Your task to perform on an android device: change your default location settings in chrome Image 0: 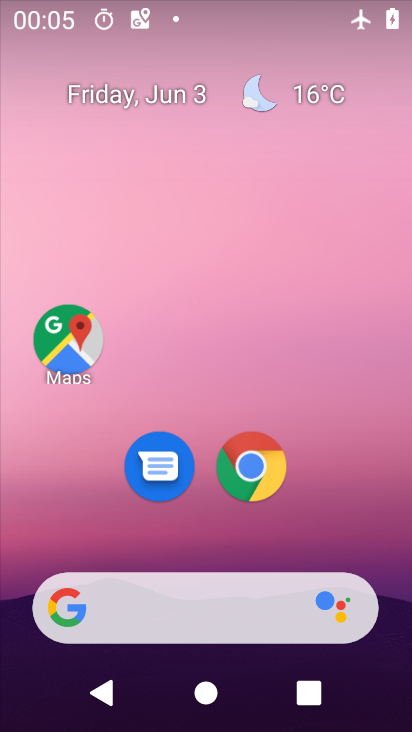
Step 0: click (241, 466)
Your task to perform on an android device: change your default location settings in chrome Image 1: 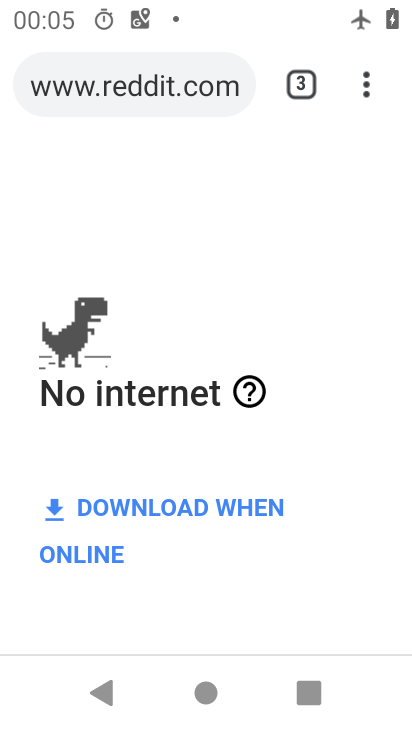
Step 1: drag from (357, 88) to (130, 530)
Your task to perform on an android device: change your default location settings in chrome Image 2: 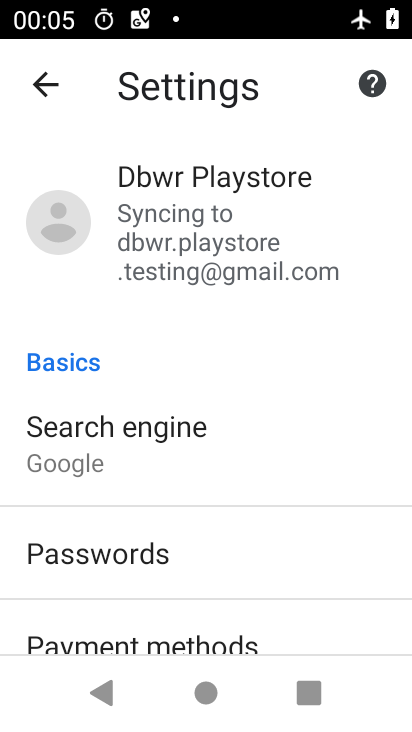
Step 2: drag from (192, 582) to (167, 236)
Your task to perform on an android device: change your default location settings in chrome Image 3: 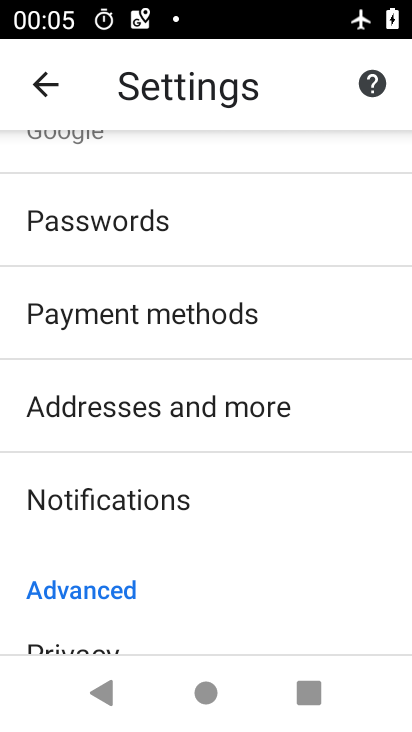
Step 3: drag from (158, 619) to (167, 342)
Your task to perform on an android device: change your default location settings in chrome Image 4: 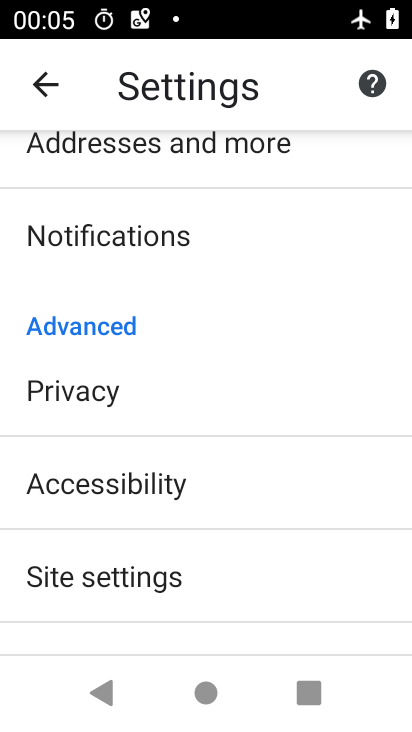
Step 4: click (171, 564)
Your task to perform on an android device: change your default location settings in chrome Image 5: 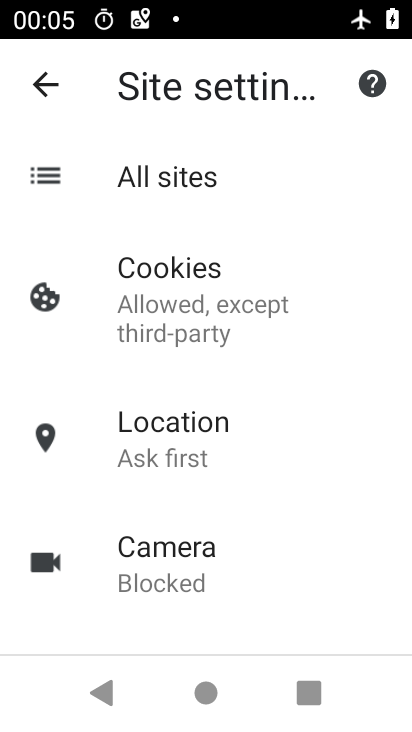
Step 5: click (194, 432)
Your task to perform on an android device: change your default location settings in chrome Image 6: 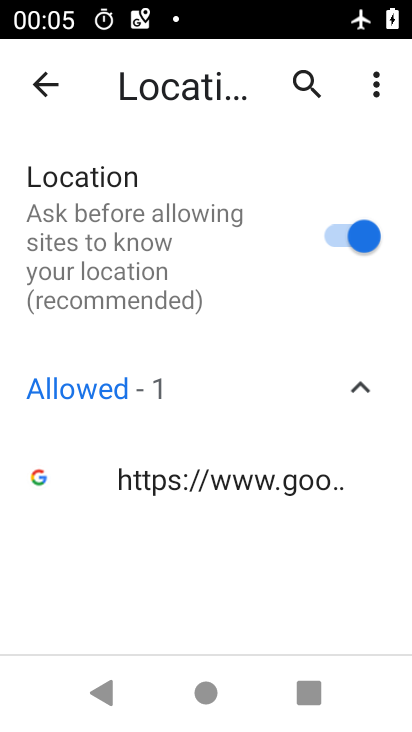
Step 6: click (338, 228)
Your task to perform on an android device: change your default location settings in chrome Image 7: 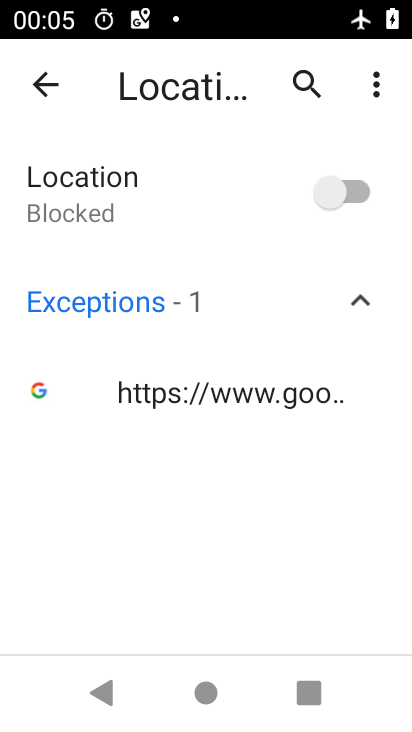
Step 7: task complete